Your task to perform on an android device: turn off picture-in-picture Image 0: 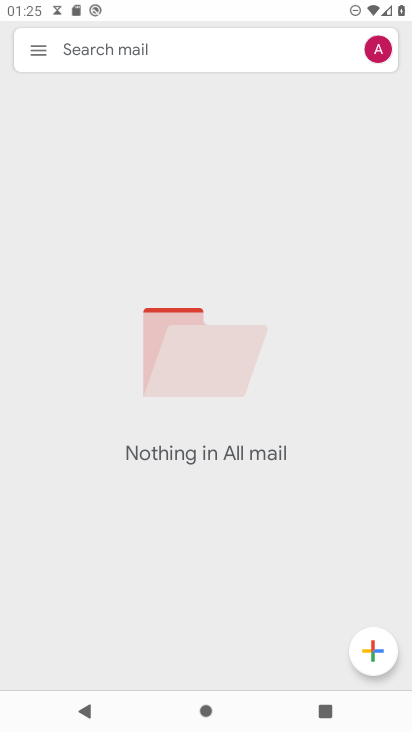
Step 0: press home button
Your task to perform on an android device: turn off picture-in-picture Image 1: 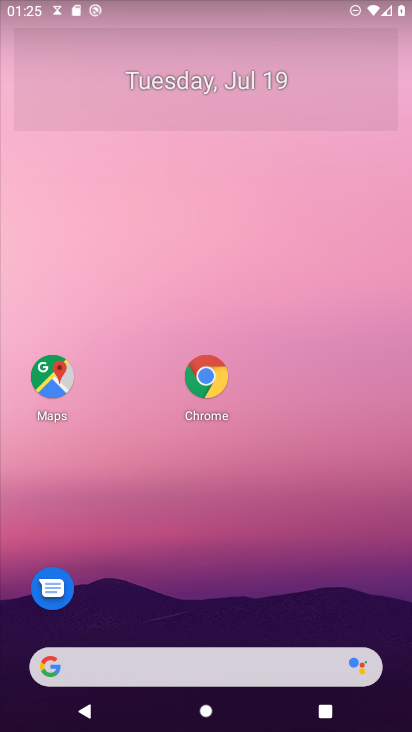
Step 1: click (198, 373)
Your task to perform on an android device: turn off picture-in-picture Image 2: 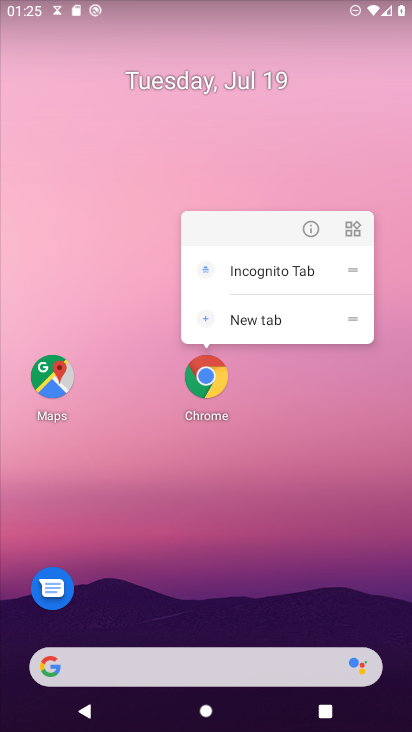
Step 2: click (310, 226)
Your task to perform on an android device: turn off picture-in-picture Image 3: 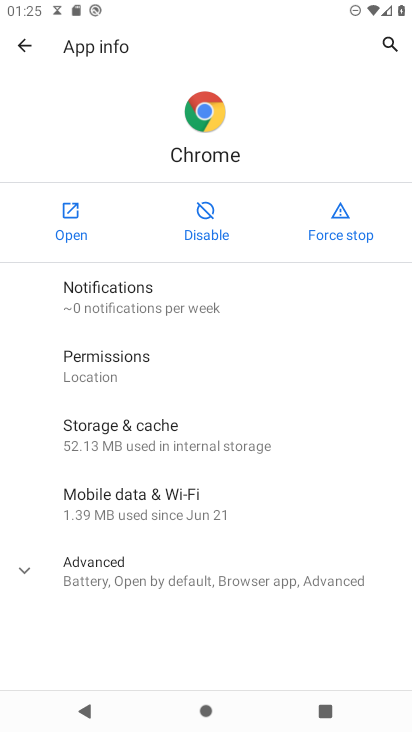
Step 3: click (102, 574)
Your task to perform on an android device: turn off picture-in-picture Image 4: 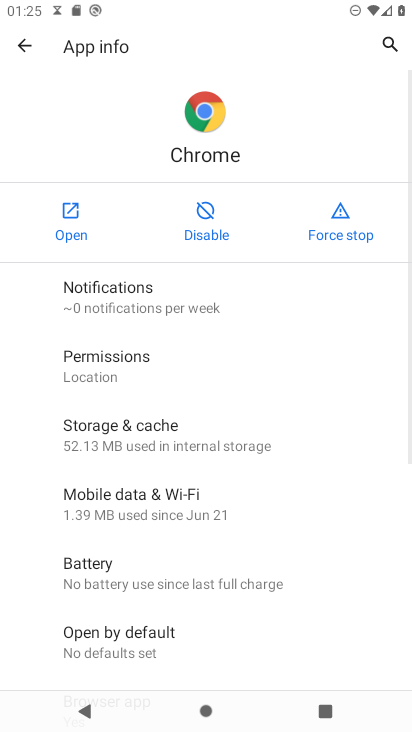
Step 4: drag from (259, 603) to (271, 208)
Your task to perform on an android device: turn off picture-in-picture Image 5: 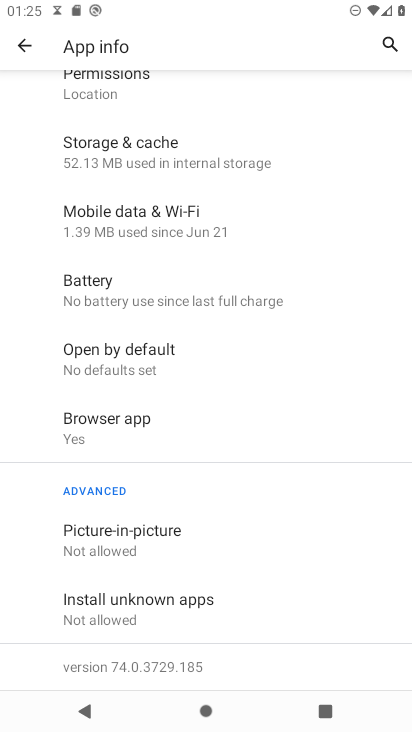
Step 5: click (105, 537)
Your task to perform on an android device: turn off picture-in-picture Image 6: 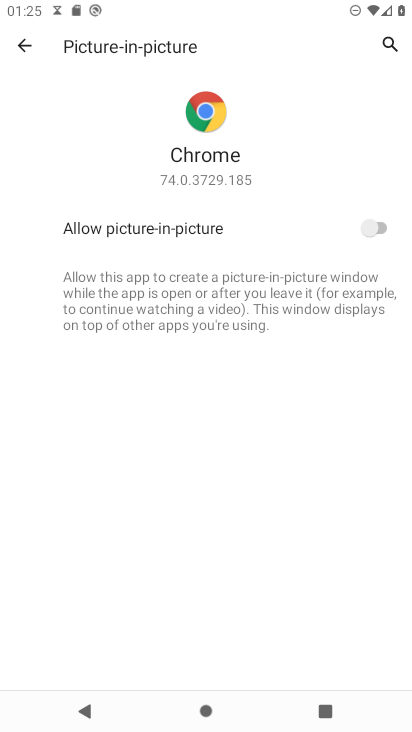
Step 6: task complete